Your task to perform on an android device: delete the emails in spam in the gmail app Image 0: 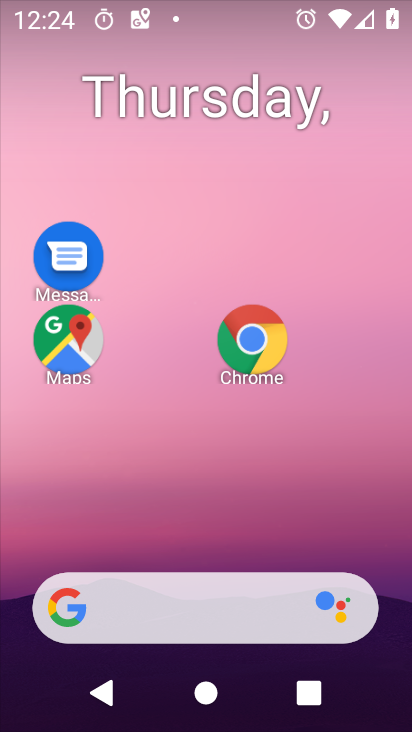
Step 0: drag from (205, 530) to (196, 91)
Your task to perform on an android device: delete the emails in spam in the gmail app Image 1: 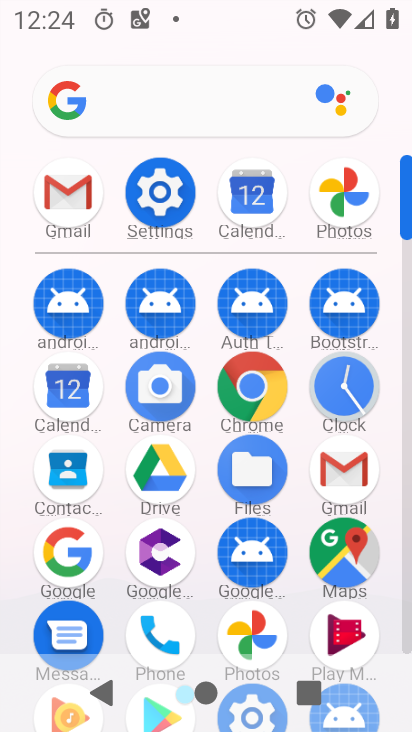
Step 1: click (64, 189)
Your task to perform on an android device: delete the emails in spam in the gmail app Image 2: 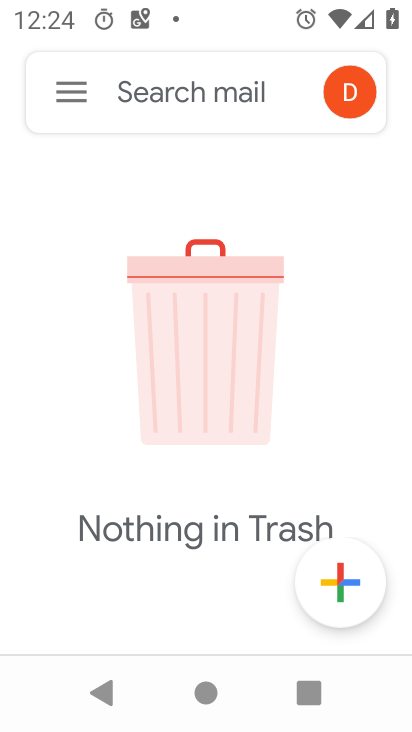
Step 2: click (69, 80)
Your task to perform on an android device: delete the emails in spam in the gmail app Image 3: 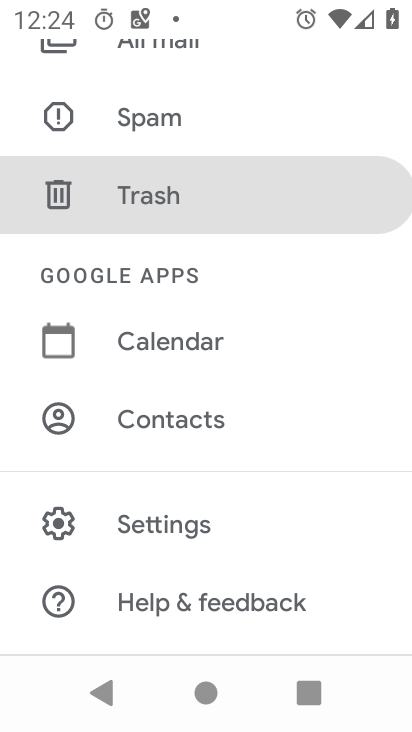
Step 3: drag from (162, 127) to (172, 244)
Your task to perform on an android device: delete the emails in spam in the gmail app Image 4: 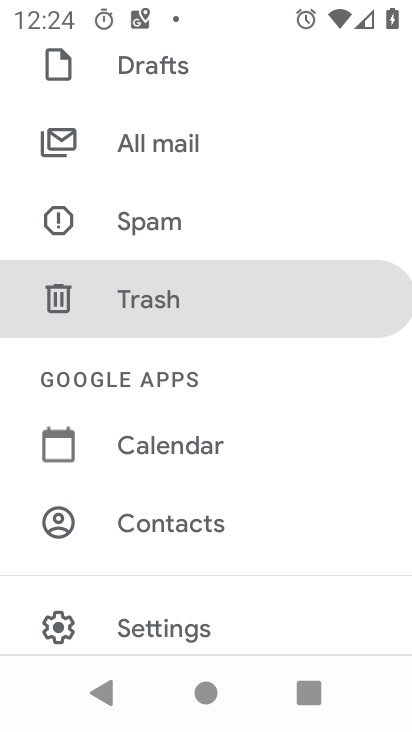
Step 4: click (136, 216)
Your task to perform on an android device: delete the emails in spam in the gmail app Image 5: 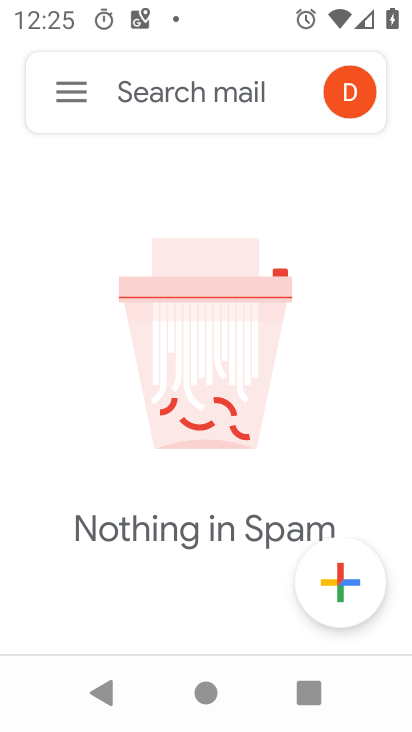
Step 5: task complete